Your task to perform on an android device: Open battery settings Image 0: 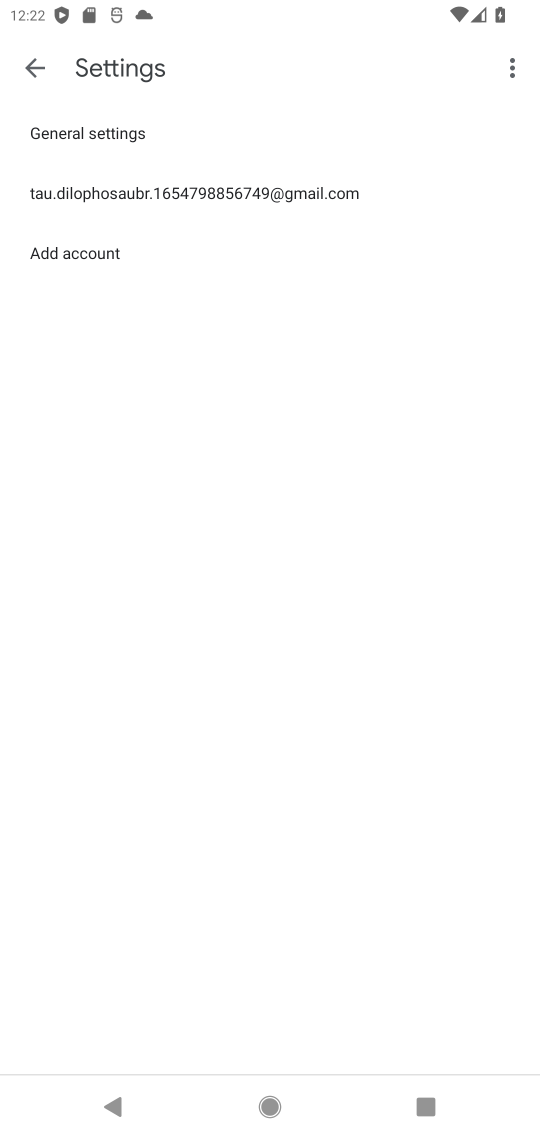
Step 0: press home button
Your task to perform on an android device: Open battery settings Image 1: 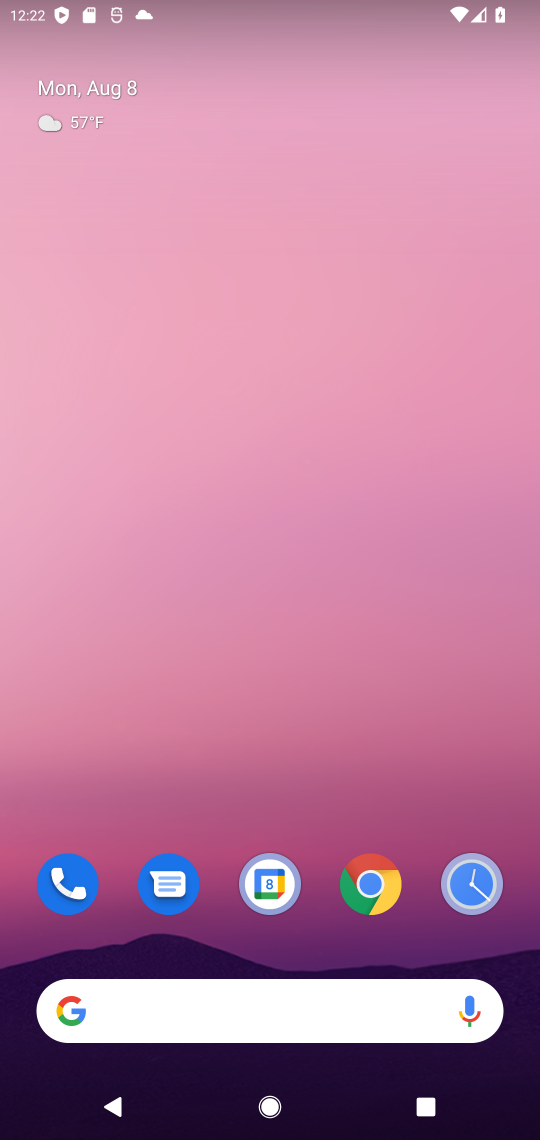
Step 1: drag from (124, 842) to (488, 155)
Your task to perform on an android device: Open battery settings Image 2: 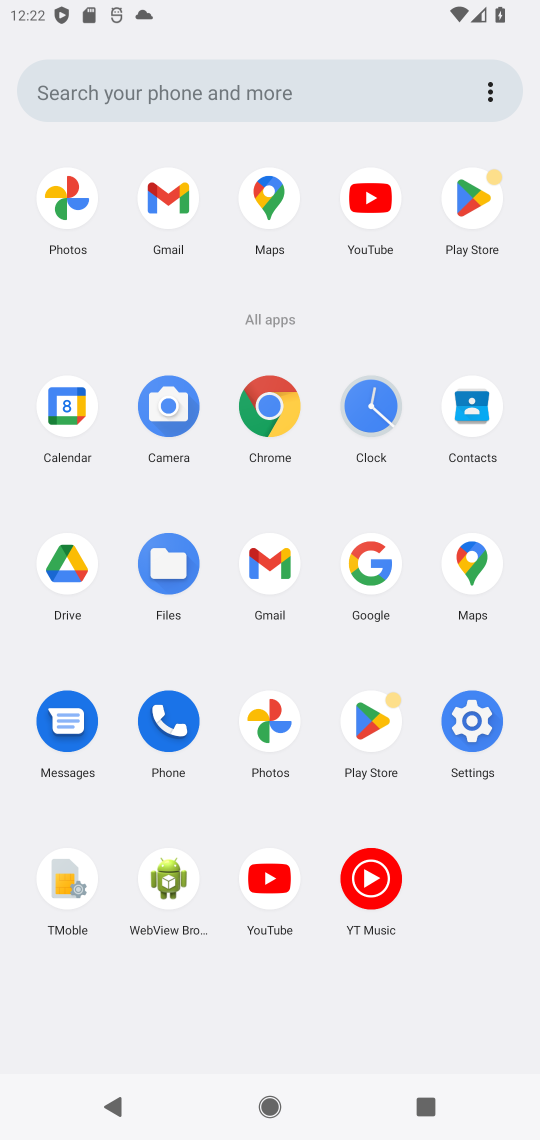
Step 2: click (465, 722)
Your task to perform on an android device: Open battery settings Image 3: 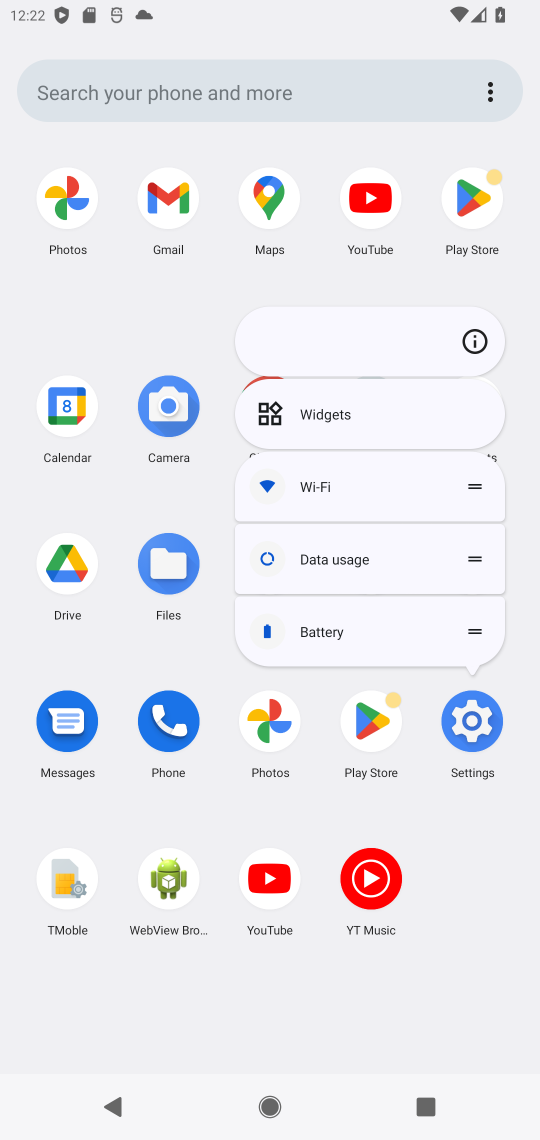
Step 3: click (465, 722)
Your task to perform on an android device: Open battery settings Image 4: 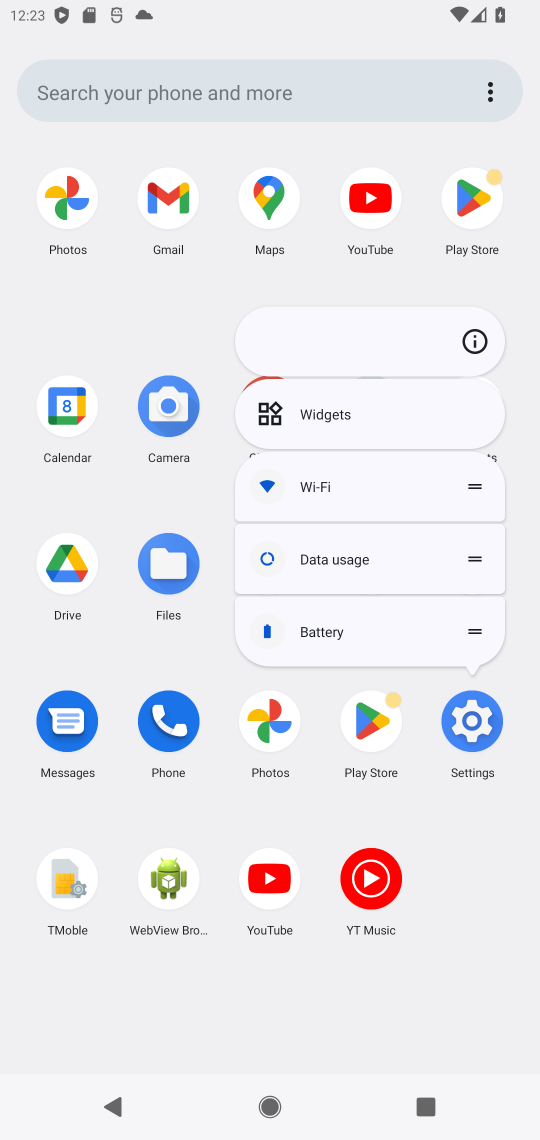
Step 4: click (465, 722)
Your task to perform on an android device: Open battery settings Image 5: 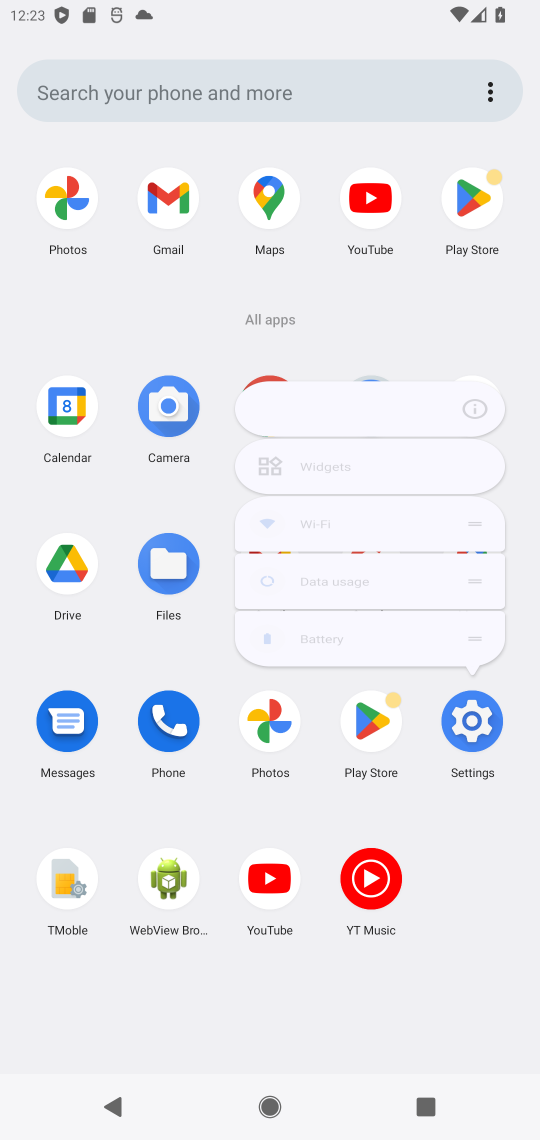
Step 5: click (465, 722)
Your task to perform on an android device: Open battery settings Image 6: 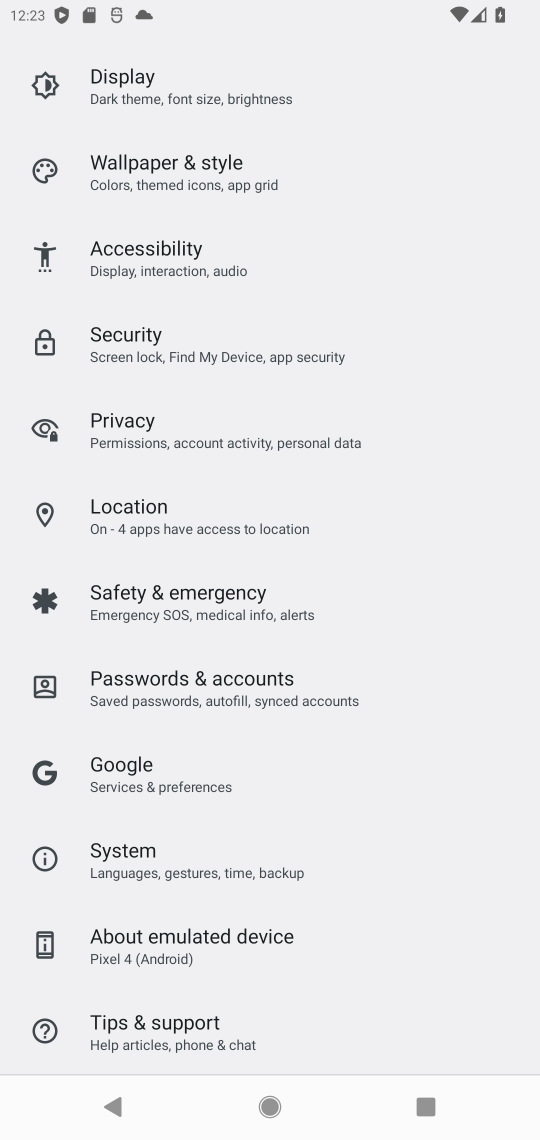
Step 6: drag from (371, 188) to (324, 1024)
Your task to perform on an android device: Open battery settings Image 7: 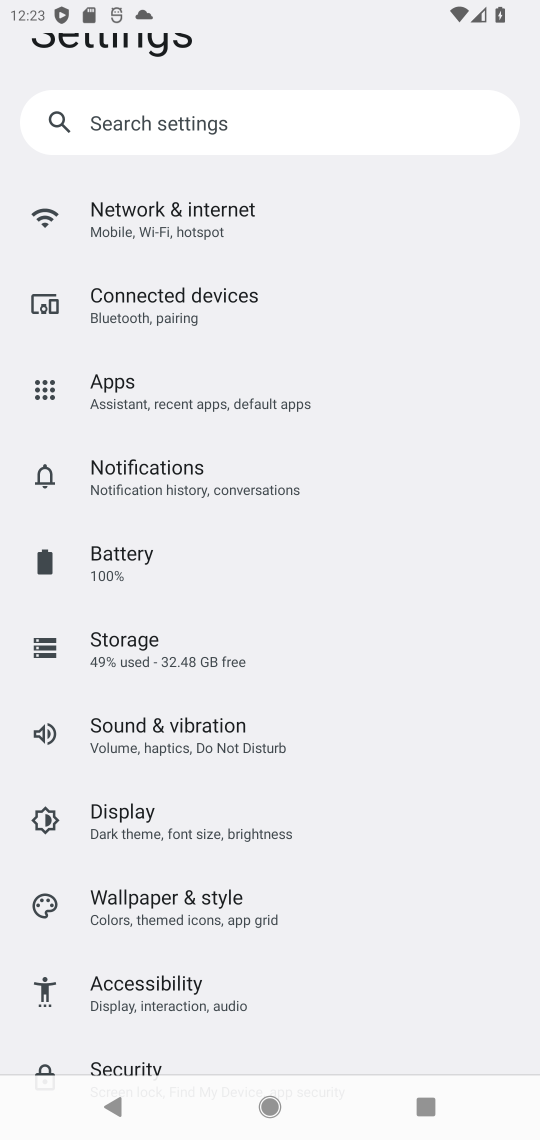
Step 7: click (186, 573)
Your task to perform on an android device: Open battery settings Image 8: 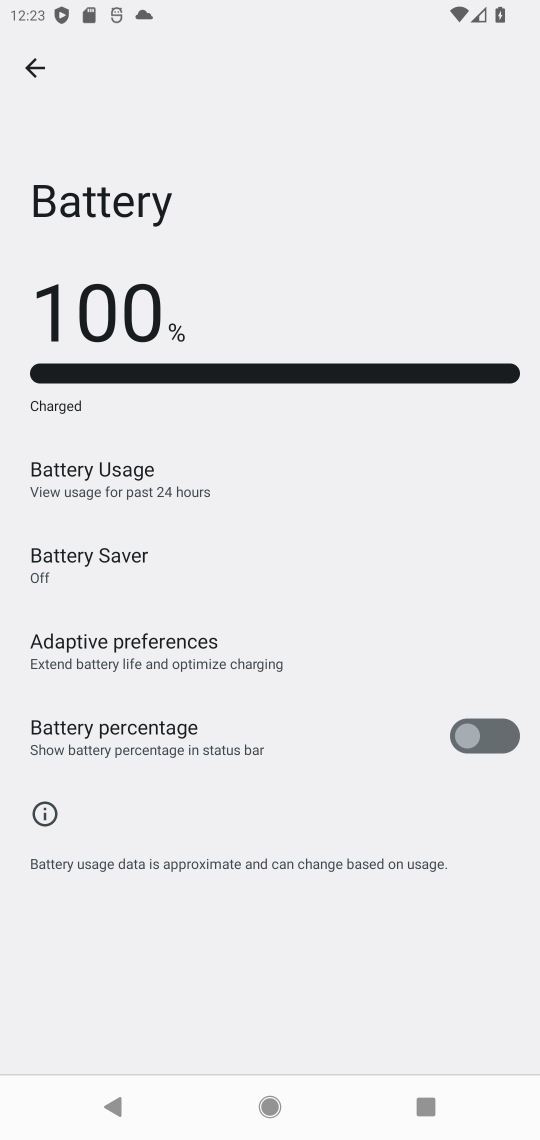
Step 8: task complete